Your task to perform on an android device: Open calendar and show me the second week of next month Image 0: 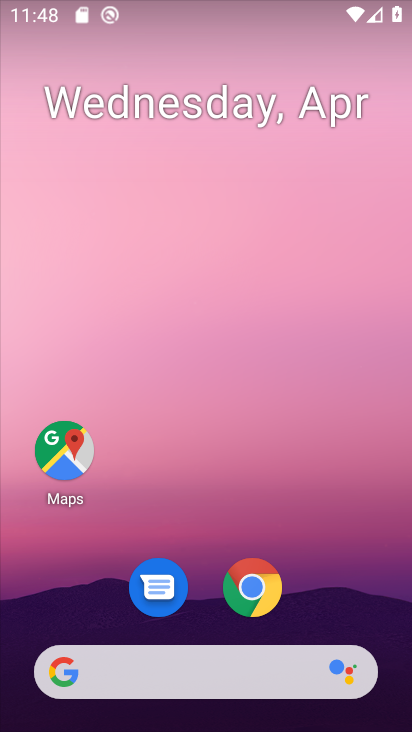
Step 0: drag from (294, 375) to (269, 137)
Your task to perform on an android device: Open calendar and show me the second week of next month Image 1: 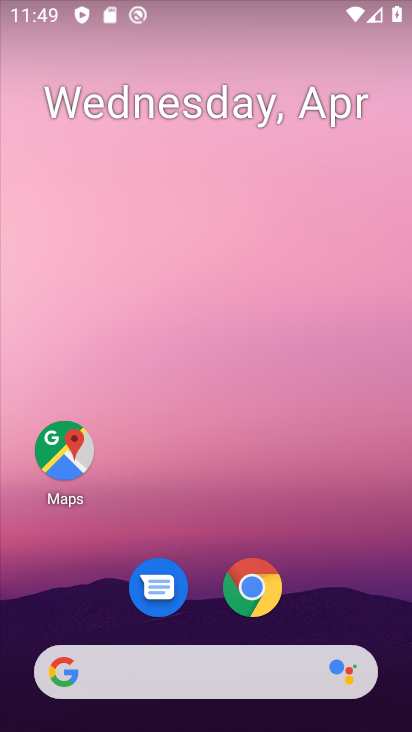
Step 1: drag from (344, 548) to (297, 179)
Your task to perform on an android device: Open calendar and show me the second week of next month Image 2: 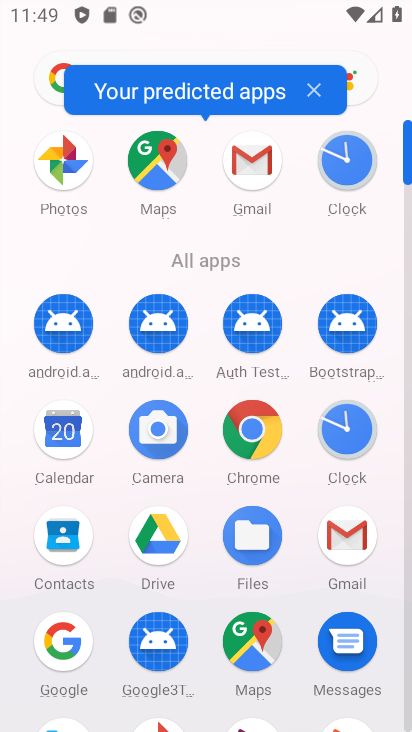
Step 2: click (54, 439)
Your task to perform on an android device: Open calendar and show me the second week of next month Image 3: 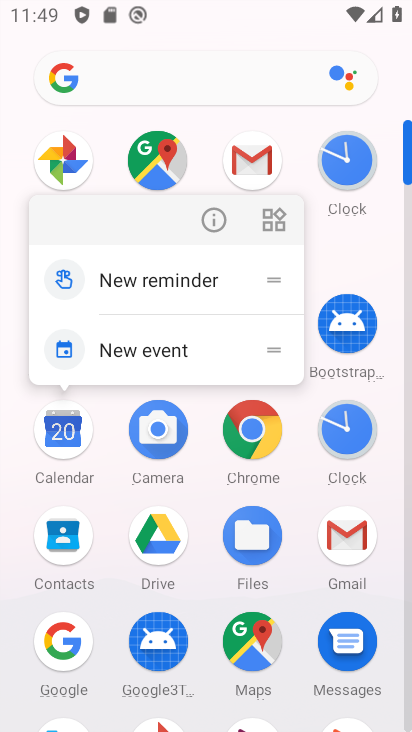
Step 3: click (66, 436)
Your task to perform on an android device: Open calendar and show me the second week of next month Image 4: 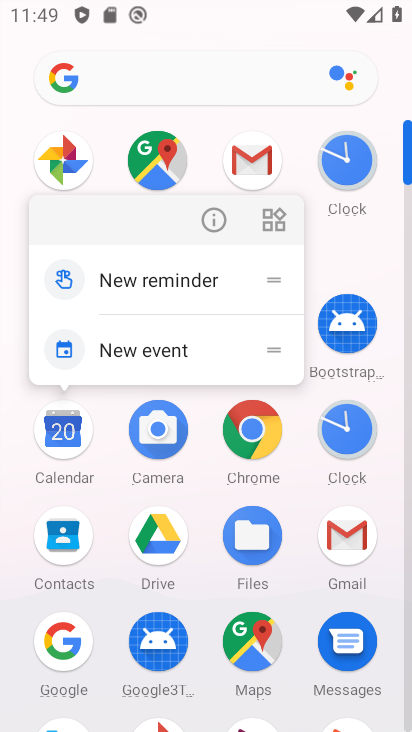
Step 4: click (66, 437)
Your task to perform on an android device: Open calendar and show me the second week of next month Image 5: 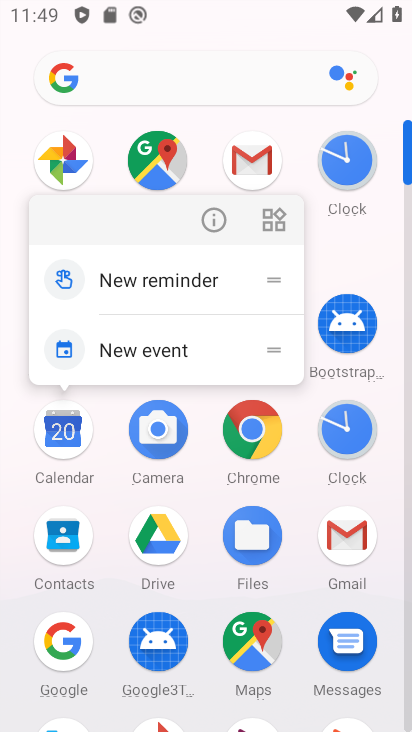
Step 5: click (66, 437)
Your task to perform on an android device: Open calendar and show me the second week of next month Image 6: 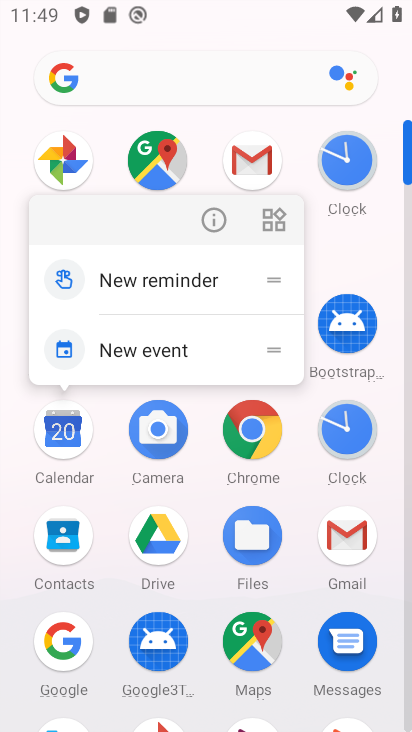
Step 6: click (67, 438)
Your task to perform on an android device: Open calendar and show me the second week of next month Image 7: 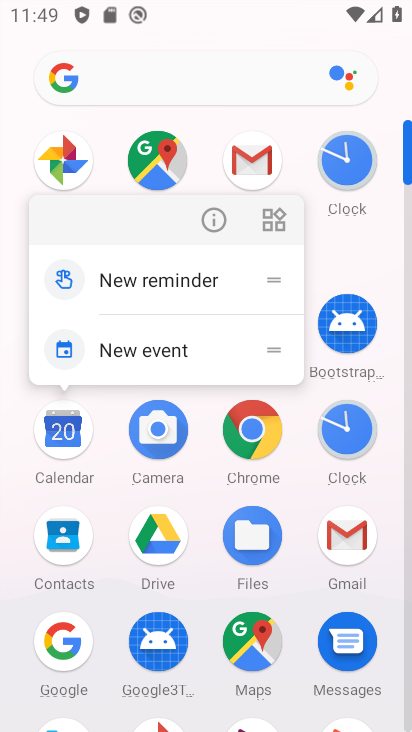
Step 7: click (62, 434)
Your task to perform on an android device: Open calendar and show me the second week of next month Image 8: 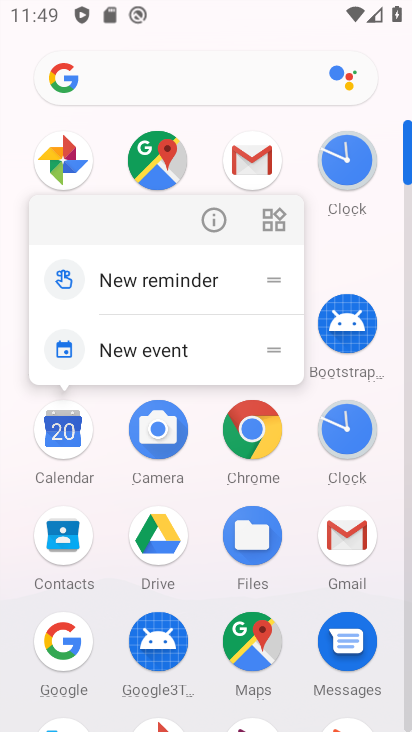
Step 8: click (62, 434)
Your task to perform on an android device: Open calendar and show me the second week of next month Image 9: 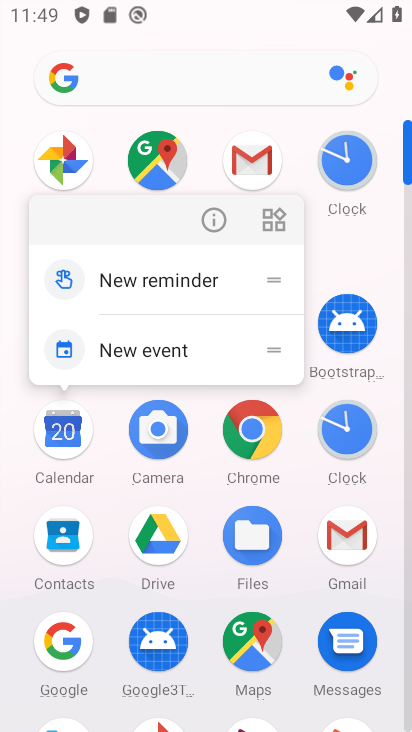
Step 9: click (105, 458)
Your task to perform on an android device: Open calendar and show me the second week of next month Image 10: 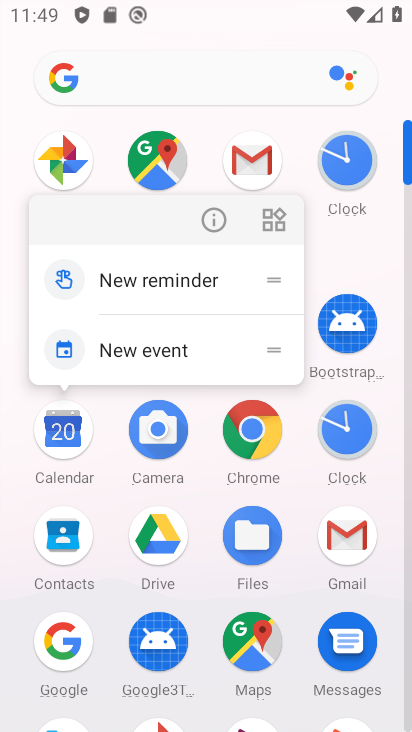
Step 10: click (71, 438)
Your task to perform on an android device: Open calendar and show me the second week of next month Image 11: 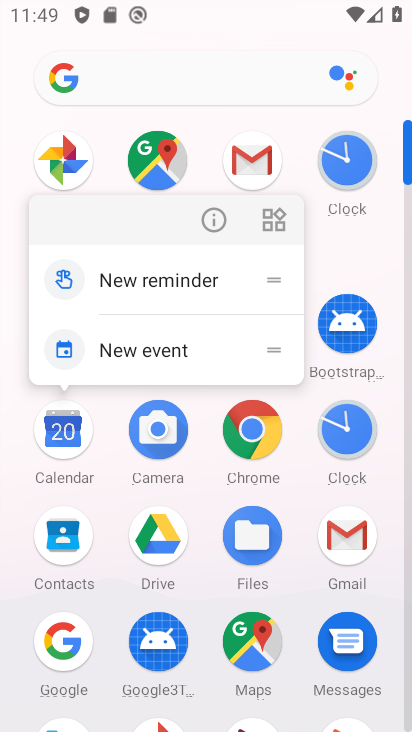
Step 11: click (99, 466)
Your task to perform on an android device: Open calendar and show me the second week of next month Image 12: 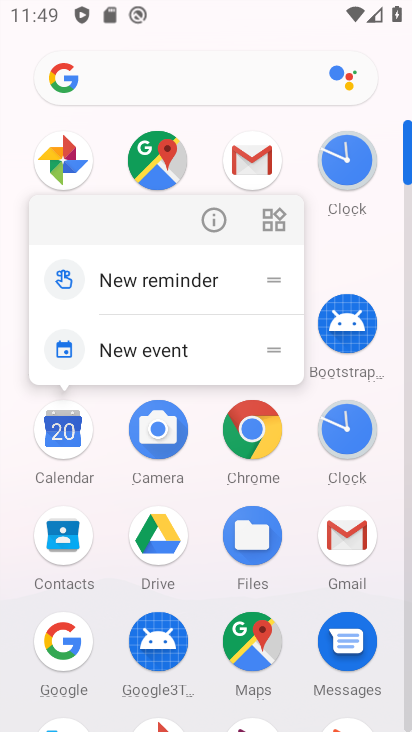
Step 12: click (56, 425)
Your task to perform on an android device: Open calendar and show me the second week of next month Image 13: 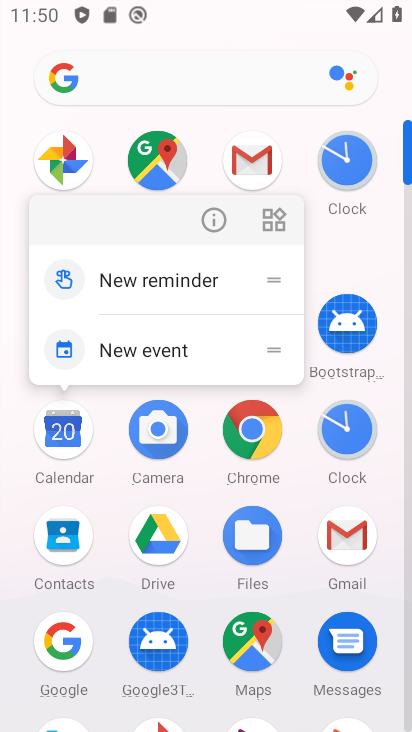
Step 13: click (334, 475)
Your task to perform on an android device: Open calendar and show me the second week of next month Image 14: 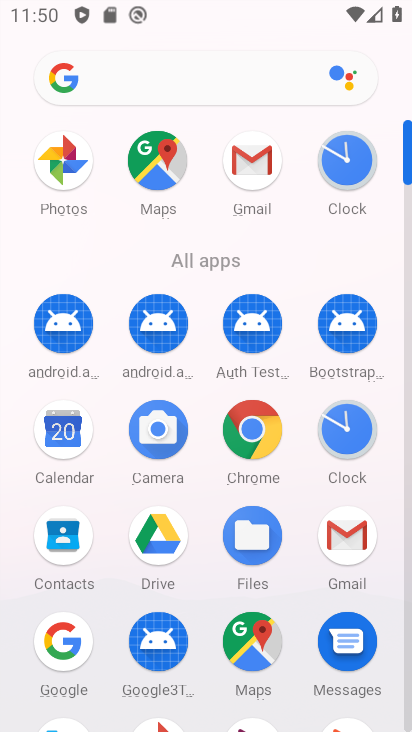
Step 14: task complete